Your task to perform on an android device: change the clock style Image 0: 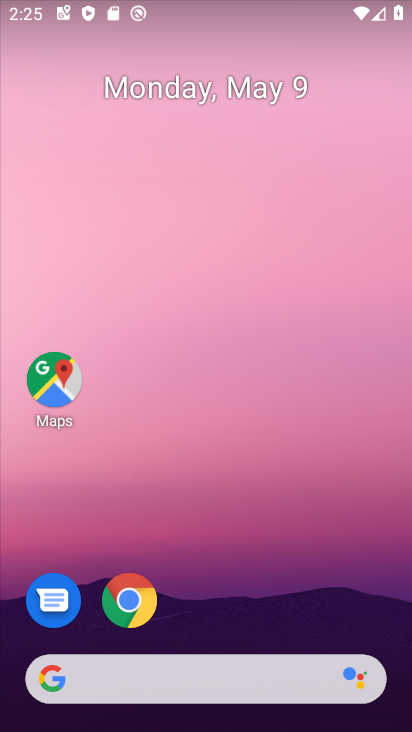
Step 0: drag from (196, 625) to (281, 100)
Your task to perform on an android device: change the clock style Image 1: 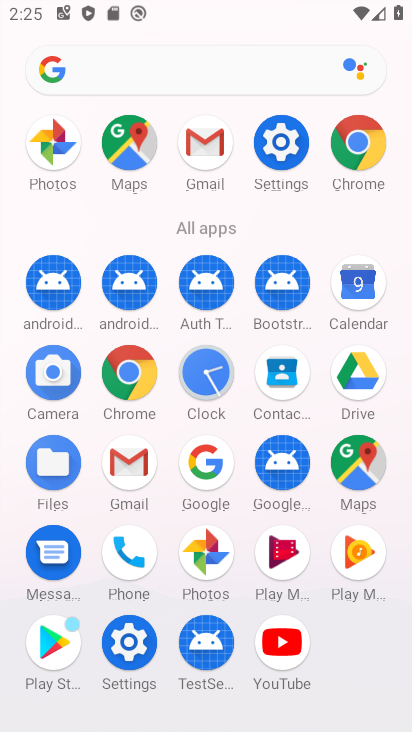
Step 1: click (202, 368)
Your task to perform on an android device: change the clock style Image 2: 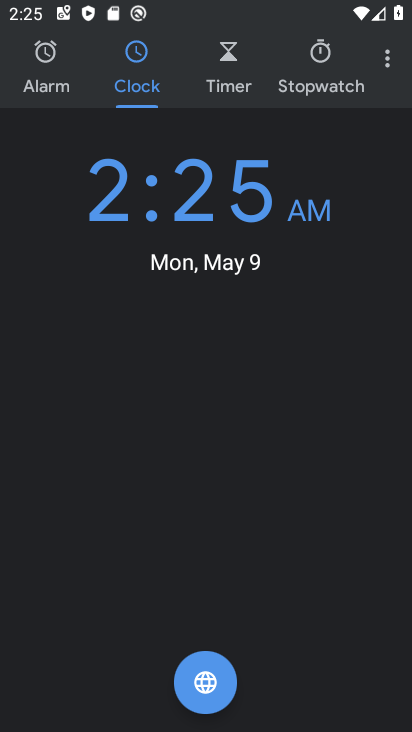
Step 2: click (387, 61)
Your task to perform on an android device: change the clock style Image 3: 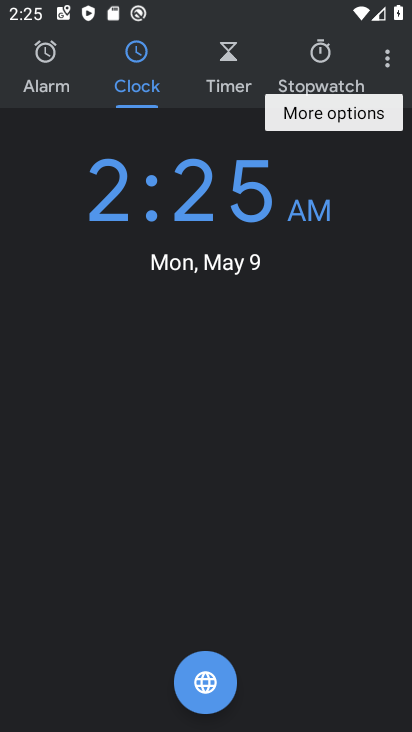
Step 3: click (391, 67)
Your task to perform on an android device: change the clock style Image 4: 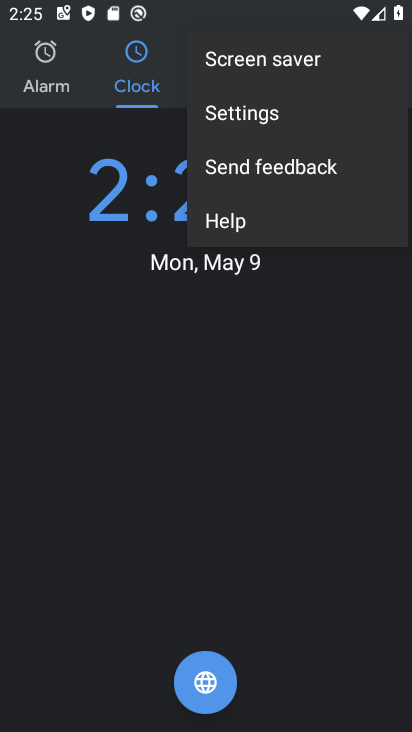
Step 4: click (256, 124)
Your task to perform on an android device: change the clock style Image 5: 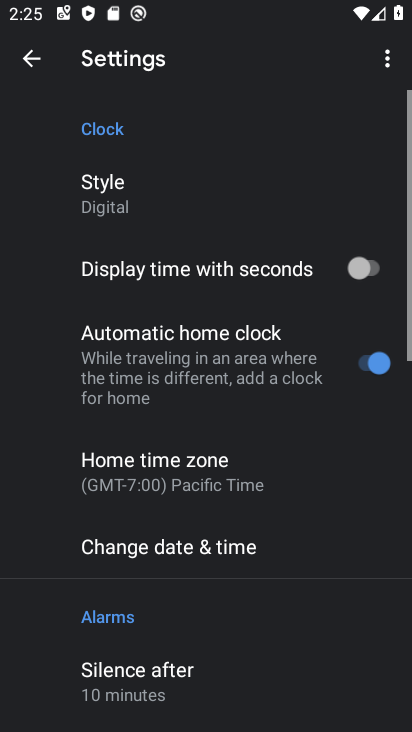
Step 5: click (109, 206)
Your task to perform on an android device: change the clock style Image 6: 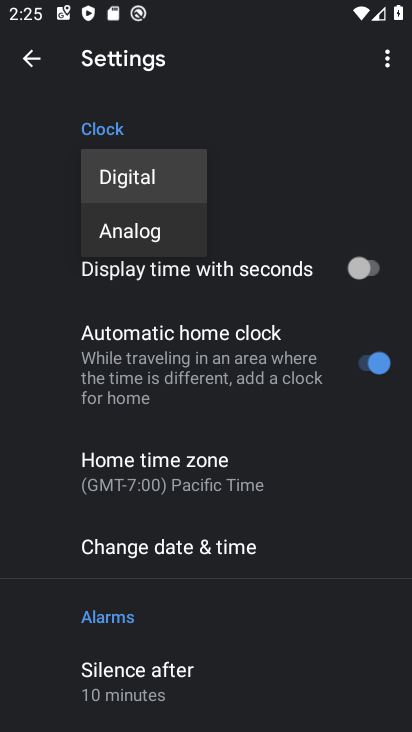
Step 6: click (127, 234)
Your task to perform on an android device: change the clock style Image 7: 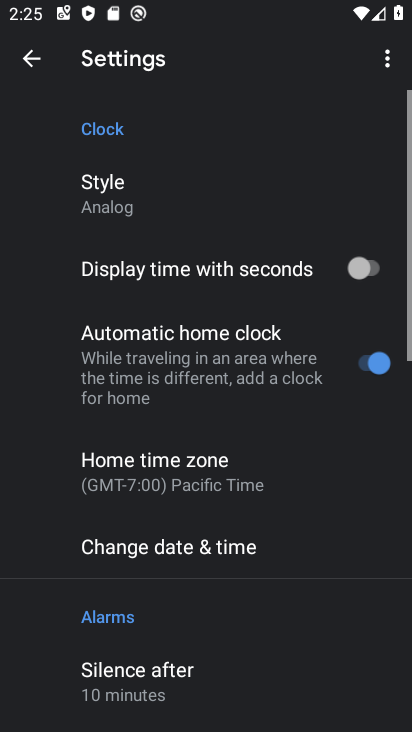
Step 7: task complete